Your task to perform on an android device: change your default location settings in chrome Image 0: 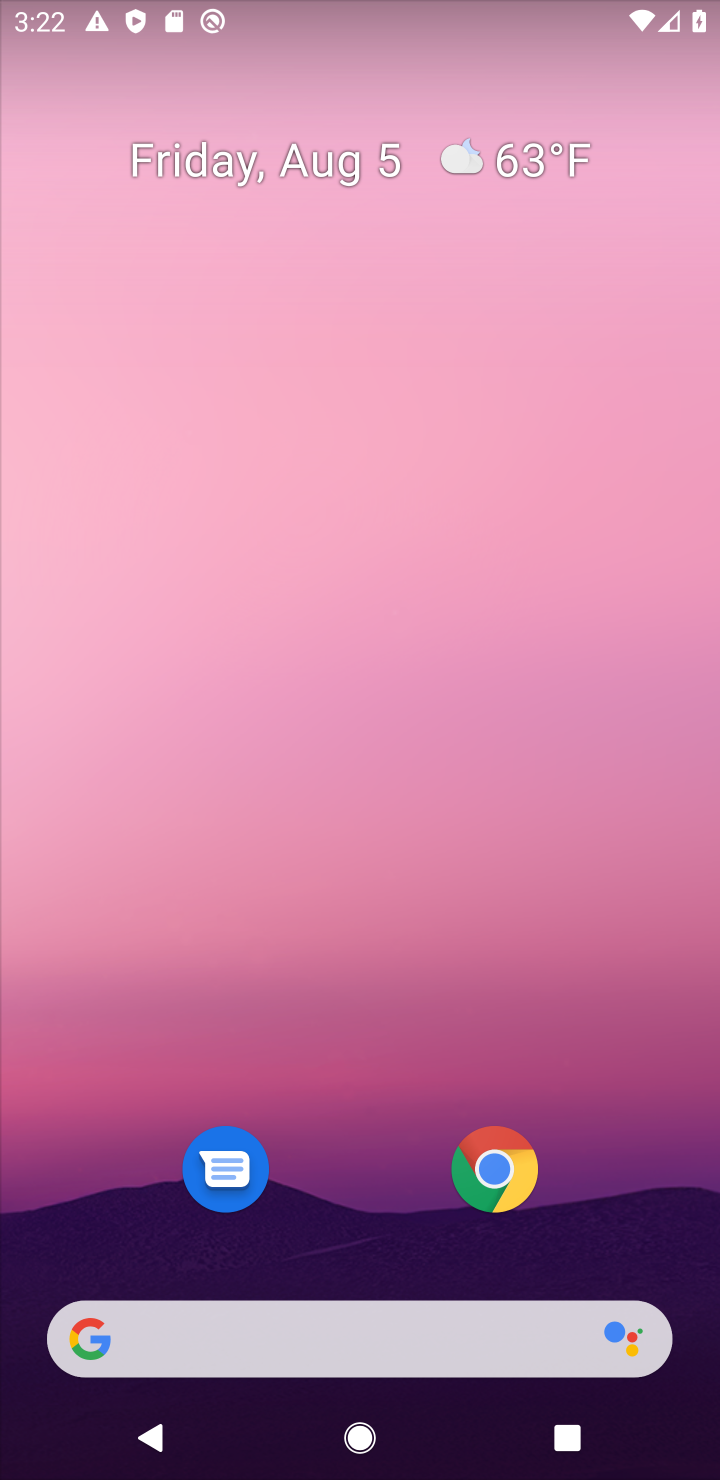
Step 0: click (510, 1157)
Your task to perform on an android device: change your default location settings in chrome Image 1: 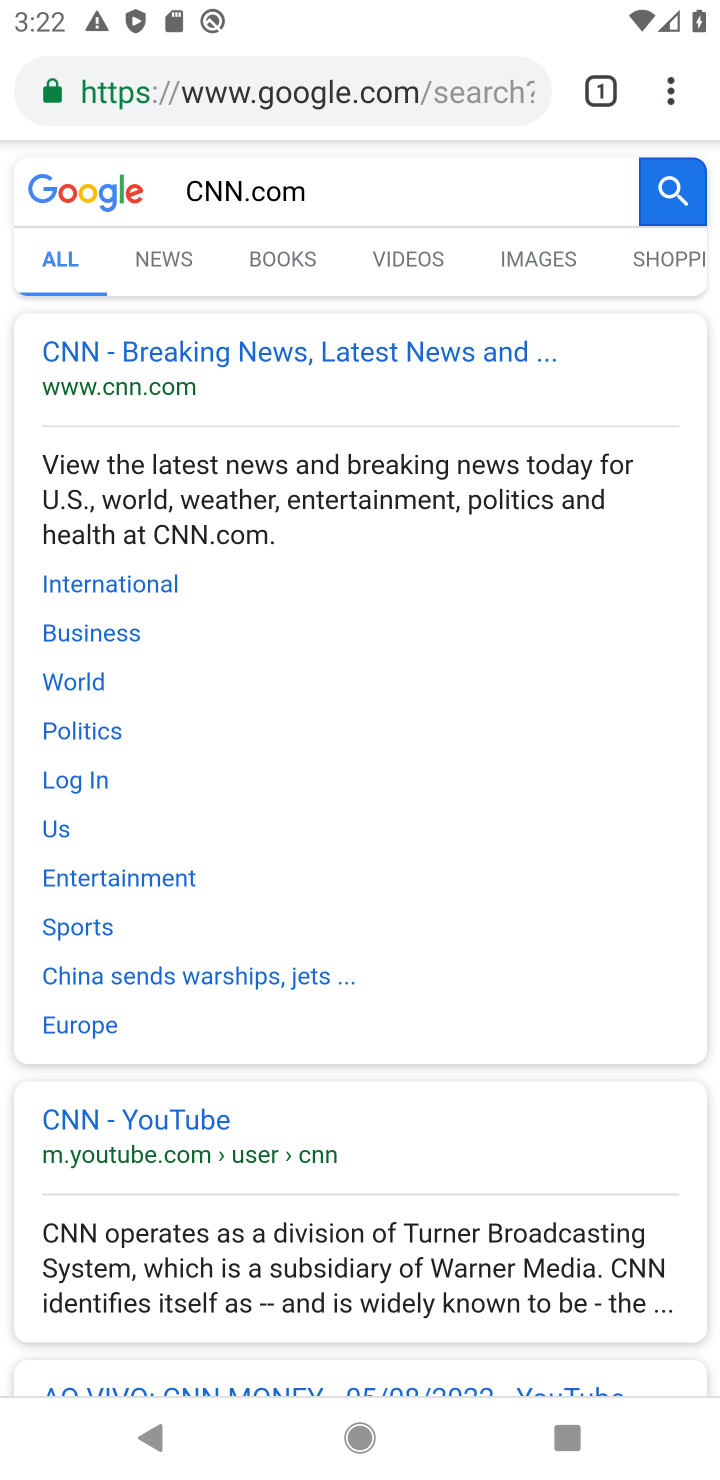
Step 1: click (666, 83)
Your task to perform on an android device: change your default location settings in chrome Image 2: 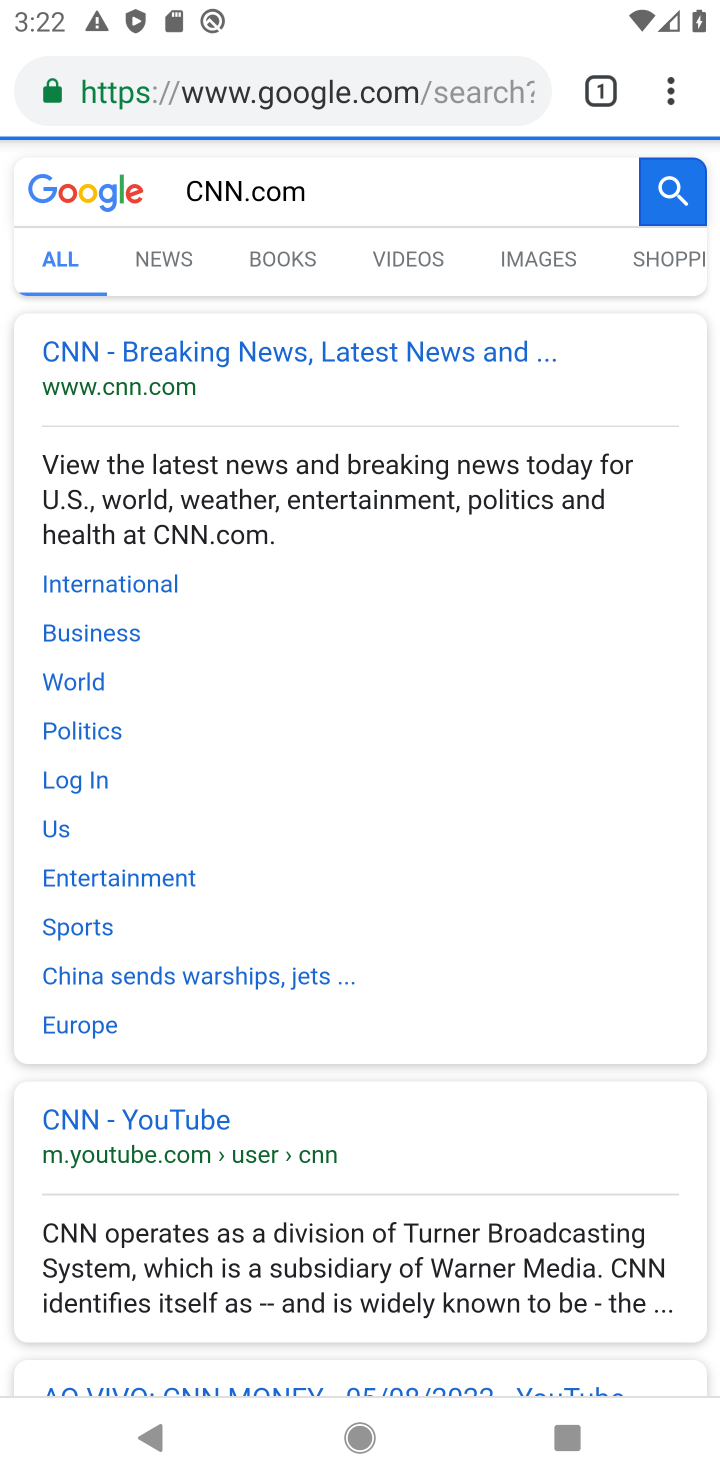
Step 2: click (666, 83)
Your task to perform on an android device: change your default location settings in chrome Image 3: 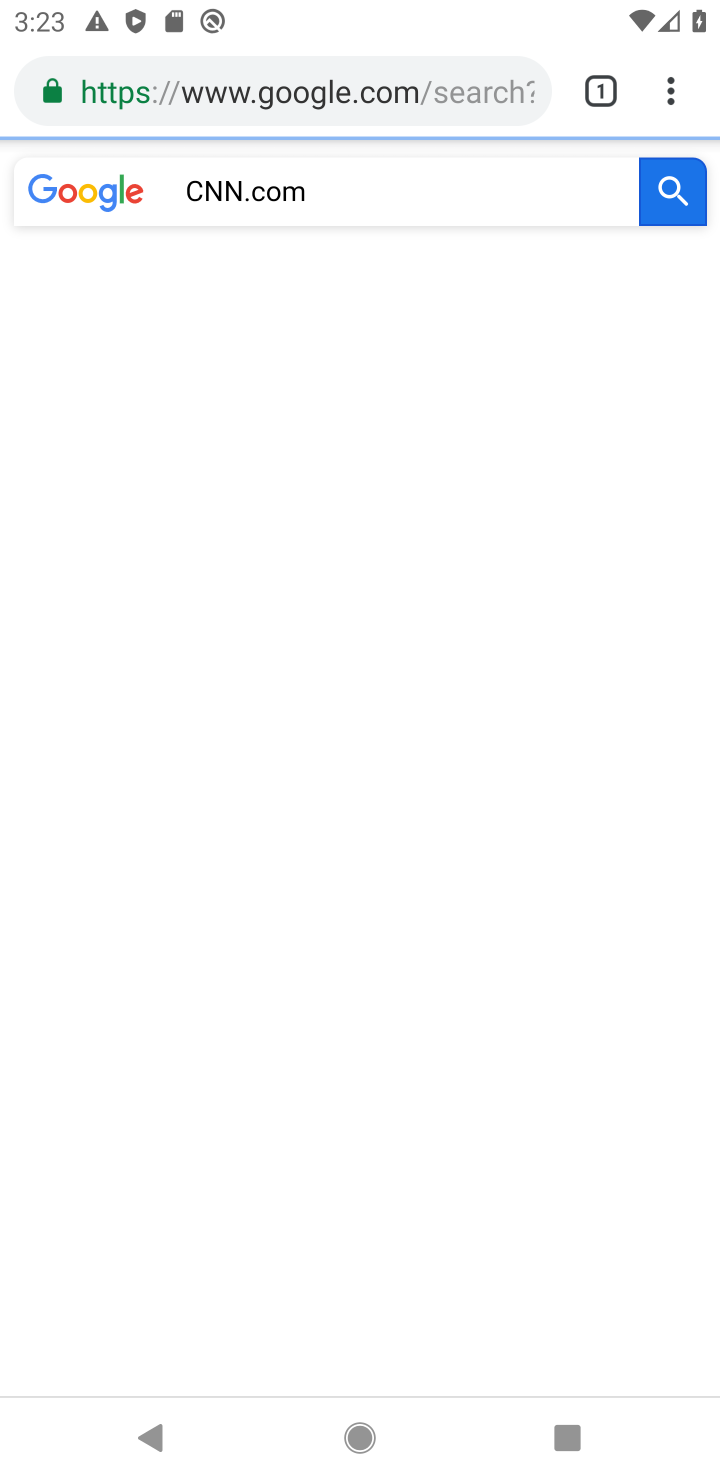
Step 3: click (666, 83)
Your task to perform on an android device: change your default location settings in chrome Image 4: 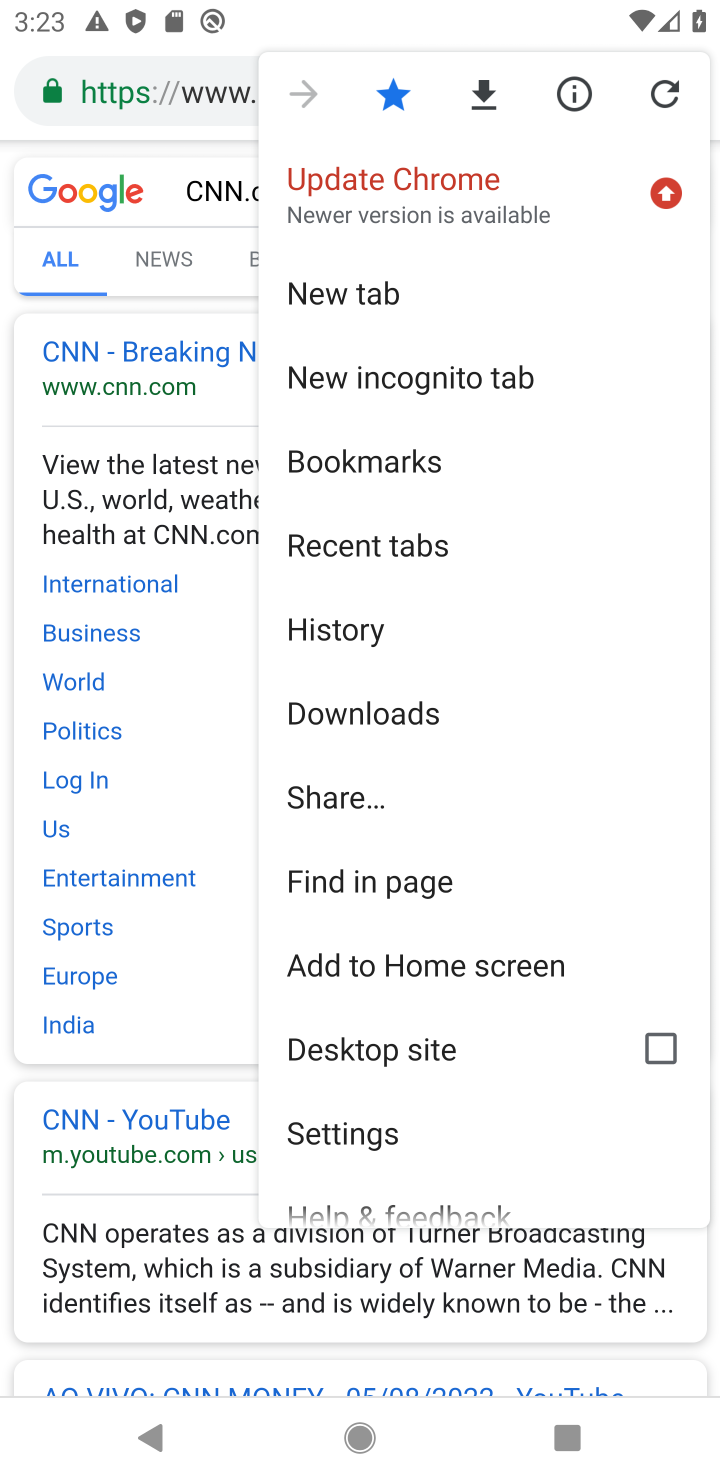
Step 4: click (298, 1120)
Your task to perform on an android device: change your default location settings in chrome Image 5: 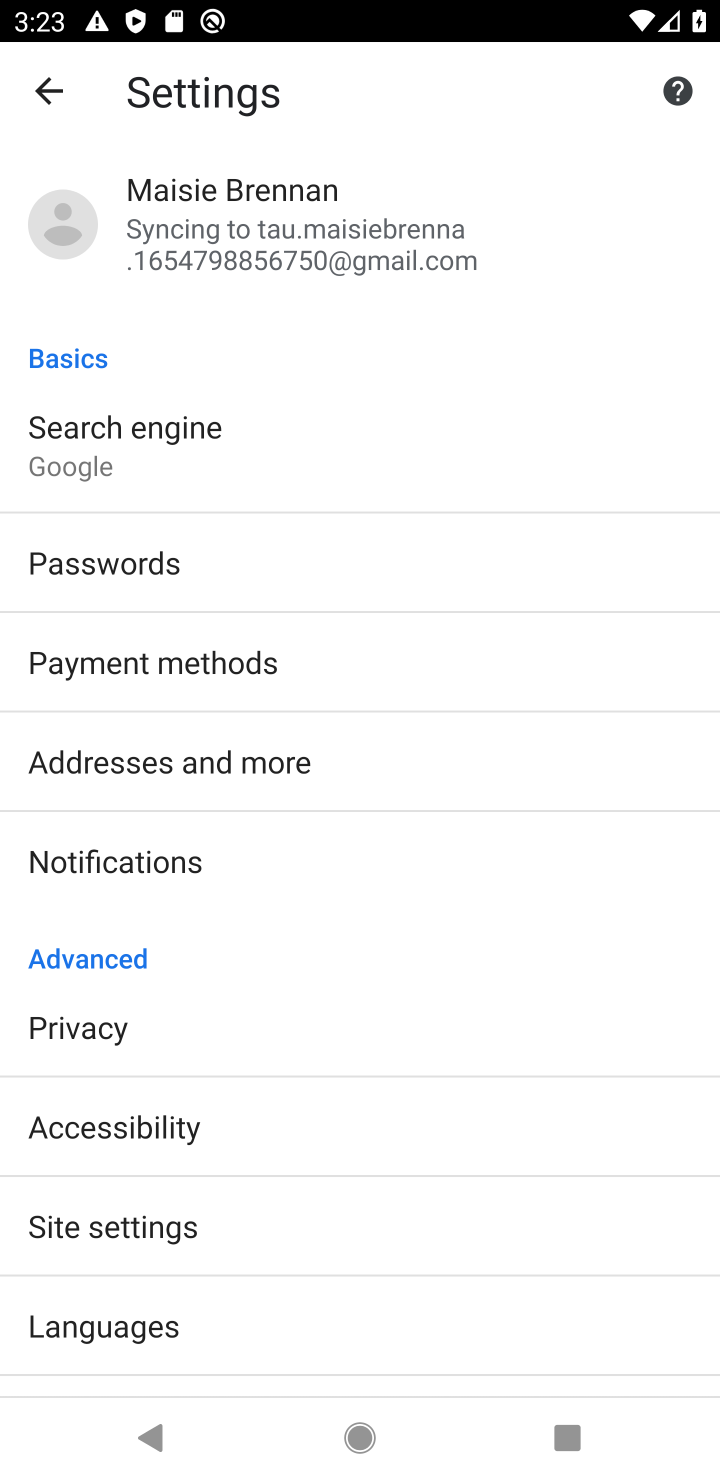
Step 5: click (145, 1211)
Your task to perform on an android device: change your default location settings in chrome Image 6: 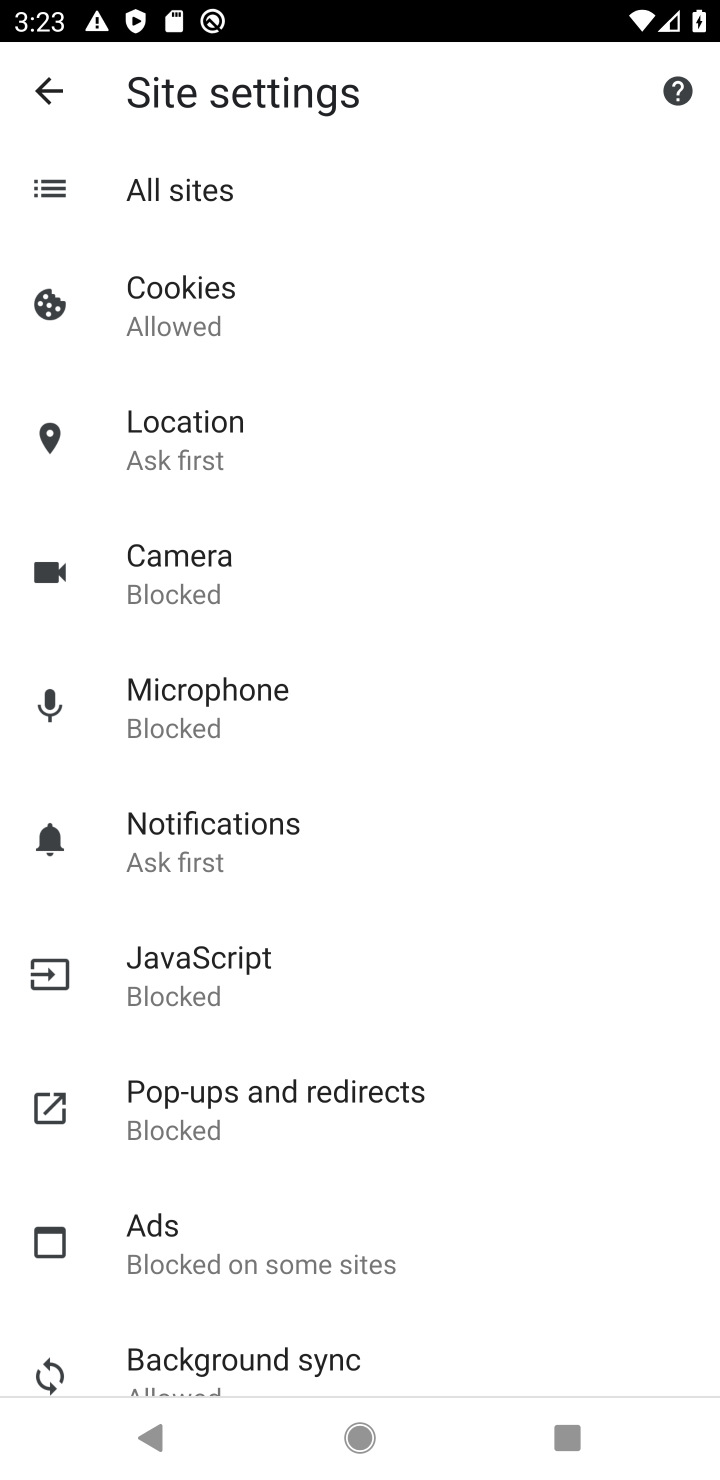
Step 6: click (167, 438)
Your task to perform on an android device: change your default location settings in chrome Image 7: 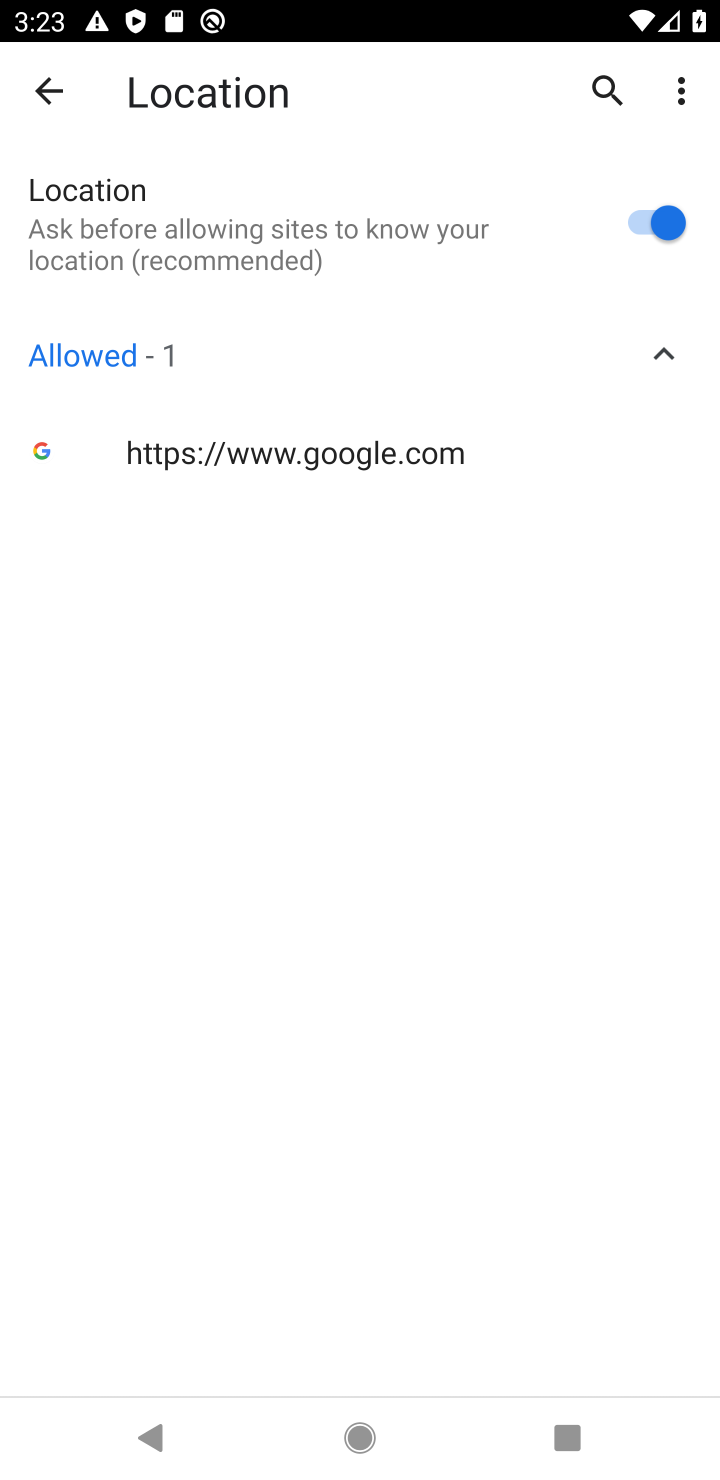
Step 7: click (660, 229)
Your task to perform on an android device: change your default location settings in chrome Image 8: 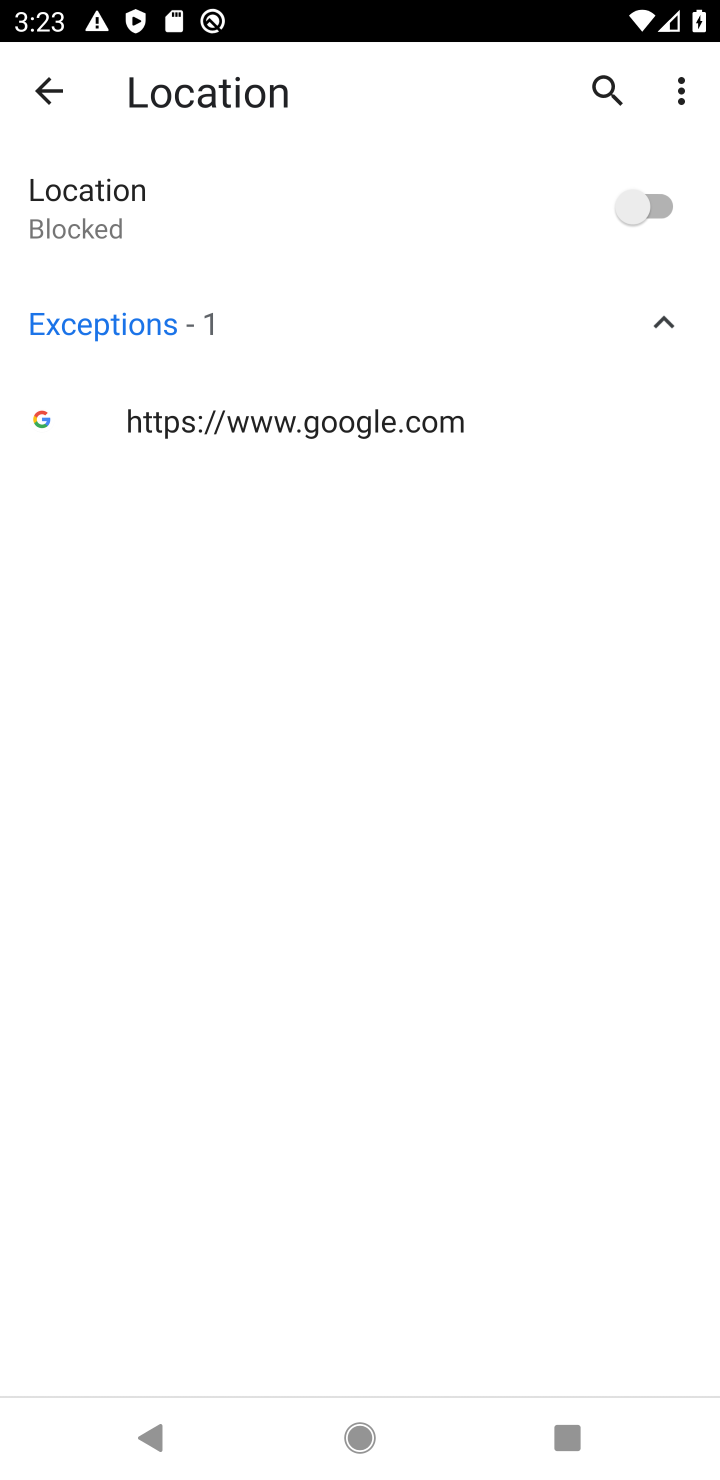
Step 8: task complete